Your task to perform on an android device: What is the news today? Image 0: 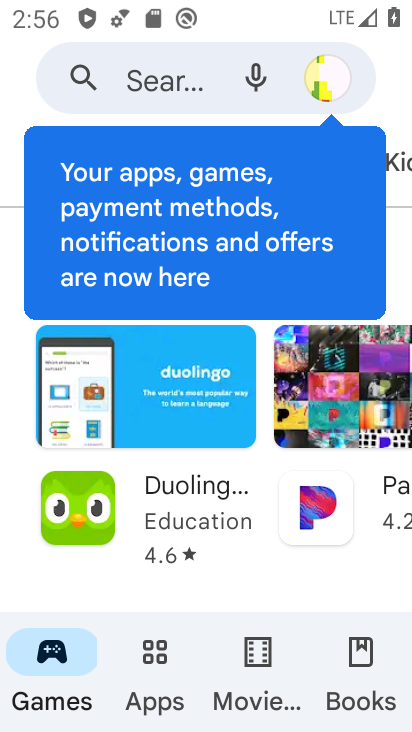
Step 0: press home button
Your task to perform on an android device: What is the news today? Image 1: 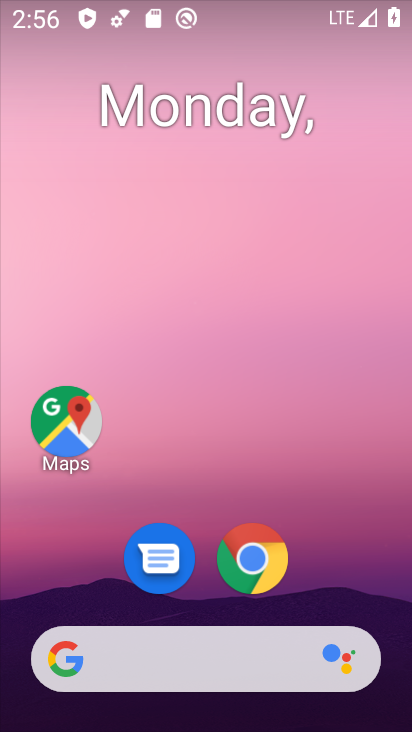
Step 1: click (131, 660)
Your task to perform on an android device: What is the news today? Image 2: 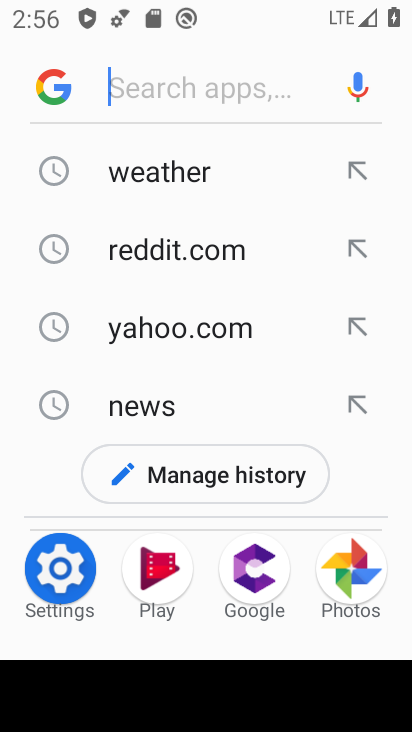
Step 2: type "news today"
Your task to perform on an android device: What is the news today? Image 3: 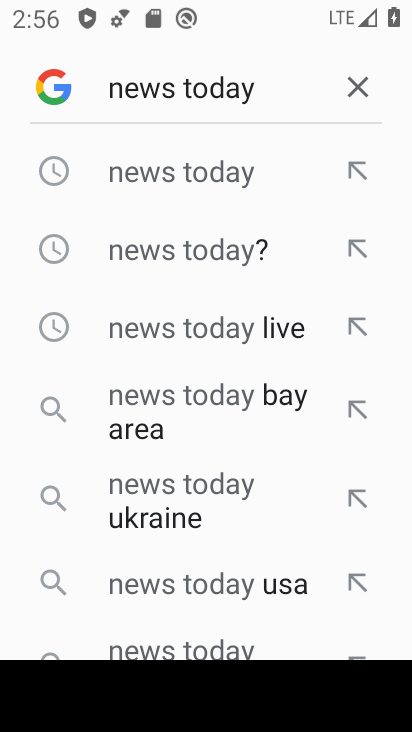
Step 3: click (140, 186)
Your task to perform on an android device: What is the news today? Image 4: 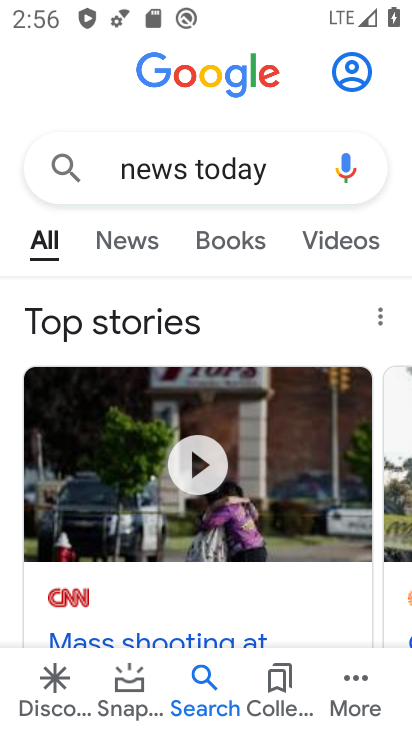
Step 4: click (148, 247)
Your task to perform on an android device: What is the news today? Image 5: 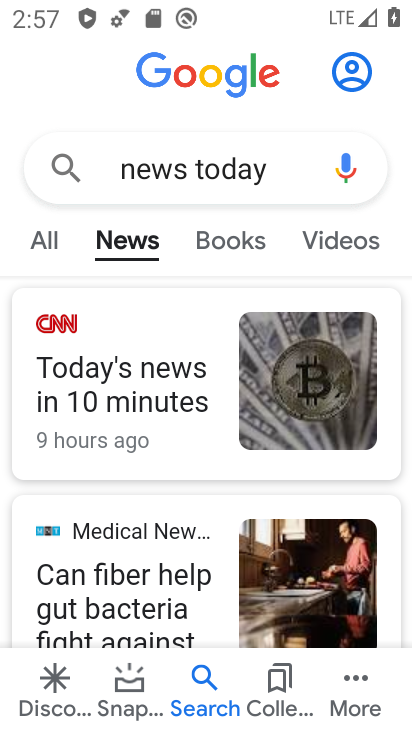
Step 5: drag from (186, 556) to (216, 284)
Your task to perform on an android device: What is the news today? Image 6: 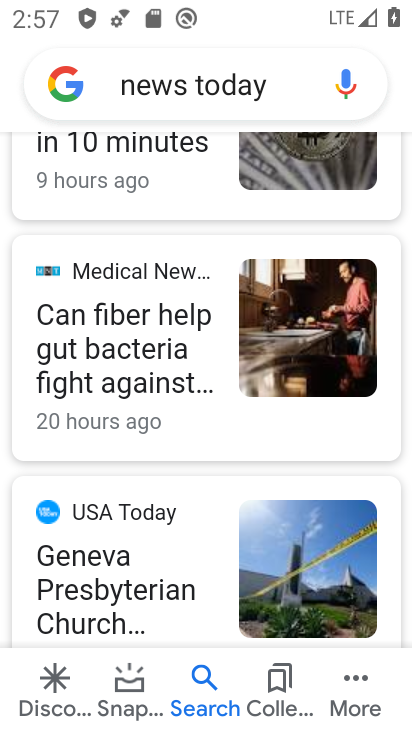
Step 6: drag from (114, 540) to (142, 248)
Your task to perform on an android device: What is the news today? Image 7: 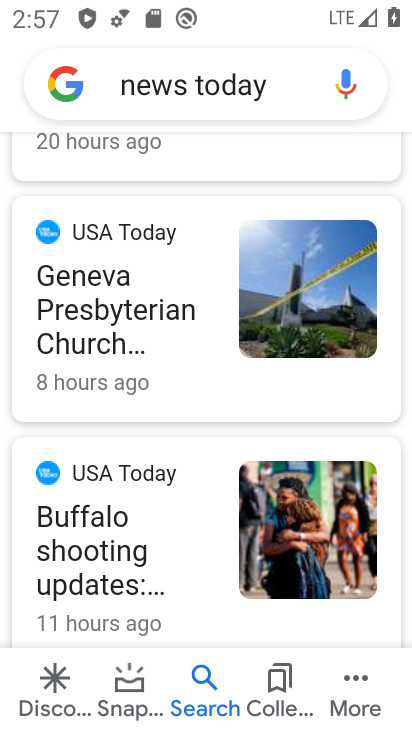
Step 7: drag from (113, 495) to (150, 206)
Your task to perform on an android device: What is the news today? Image 8: 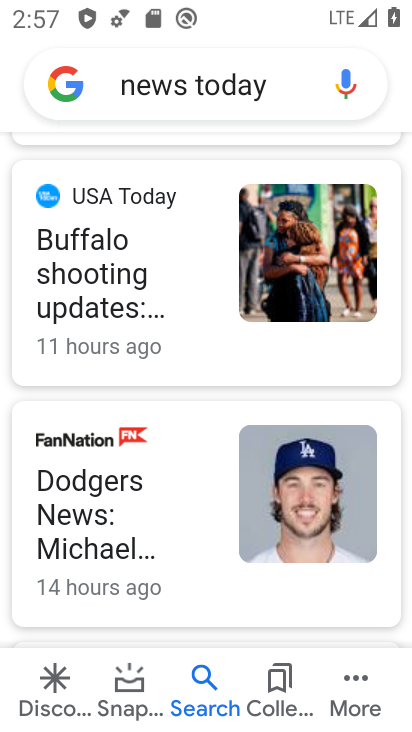
Step 8: drag from (152, 198) to (102, 668)
Your task to perform on an android device: What is the news today? Image 9: 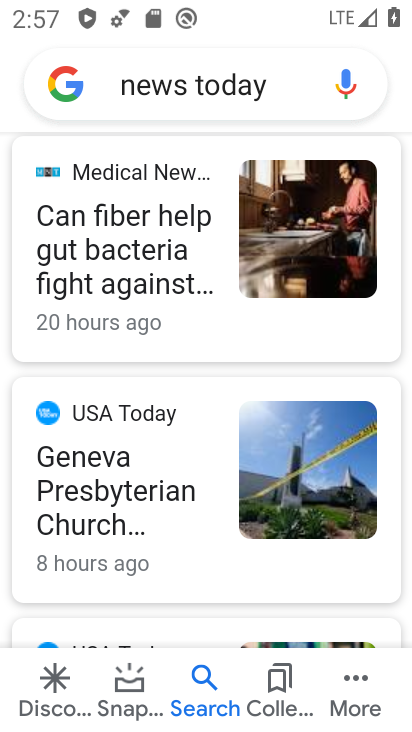
Step 9: drag from (99, 283) to (94, 684)
Your task to perform on an android device: What is the news today? Image 10: 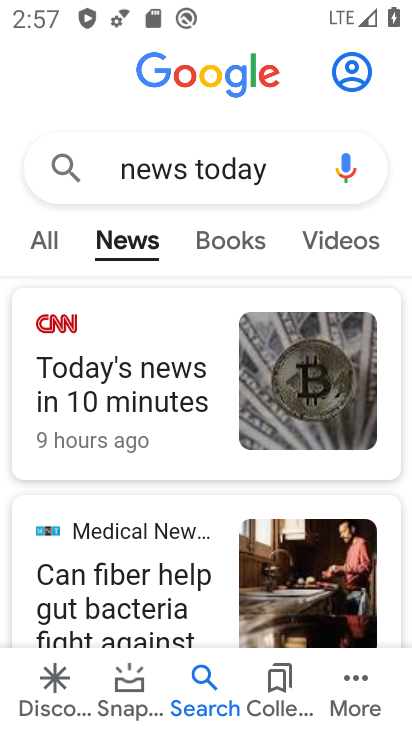
Step 10: click (102, 412)
Your task to perform on an android device: What is the news today? Image 11: 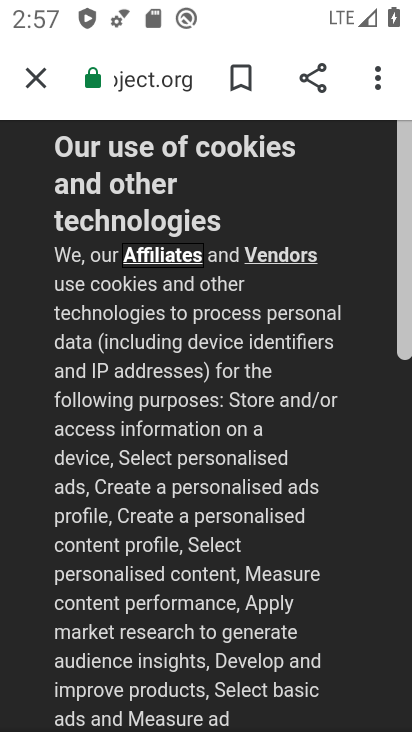
Step 11: task complete